Your task to perform on an android device: open wifi settings Image 0: 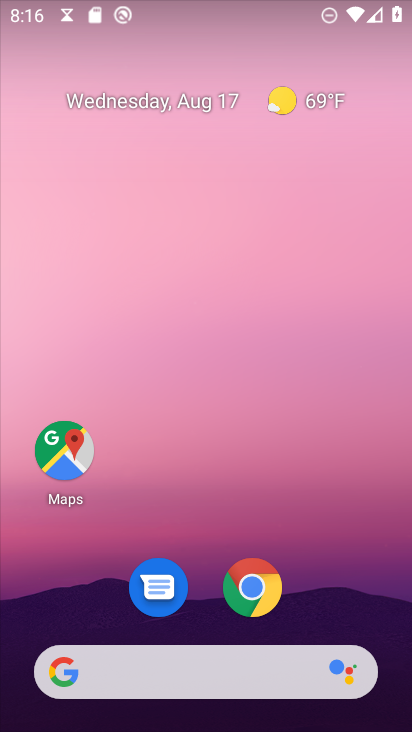
Step 0: drag from (6, 697) to (130, 382)
Your task to perform on an android device: open wifi settings Image 1: 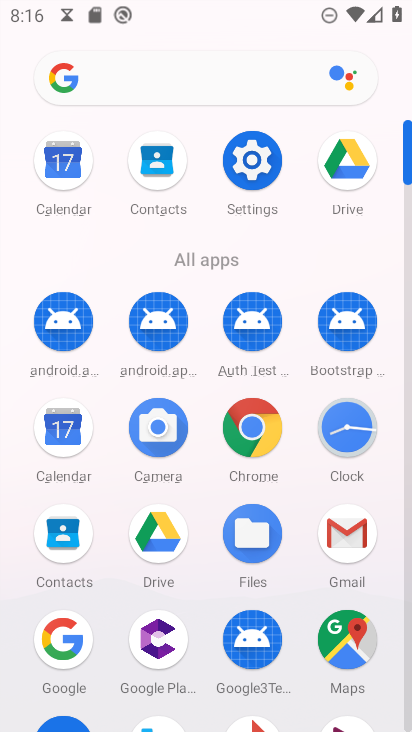
Step 1: click (246, 181)
Your task to perform on an android device: open wifi settings Image 2: 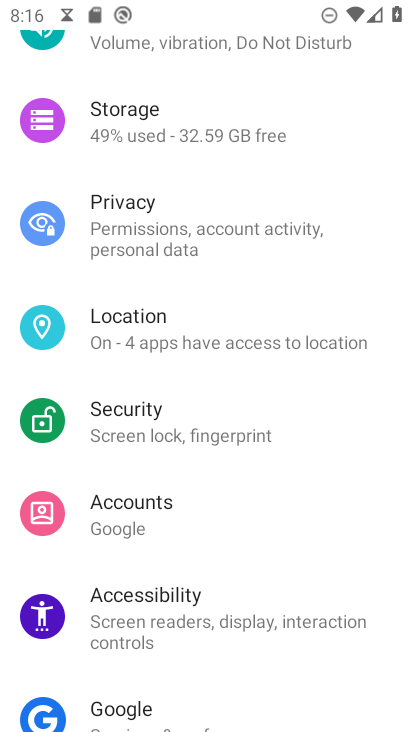
Step 2: drag from (367, 64) to (411, 480)
Your task to perform on an android device: open wifi settings Image 3: 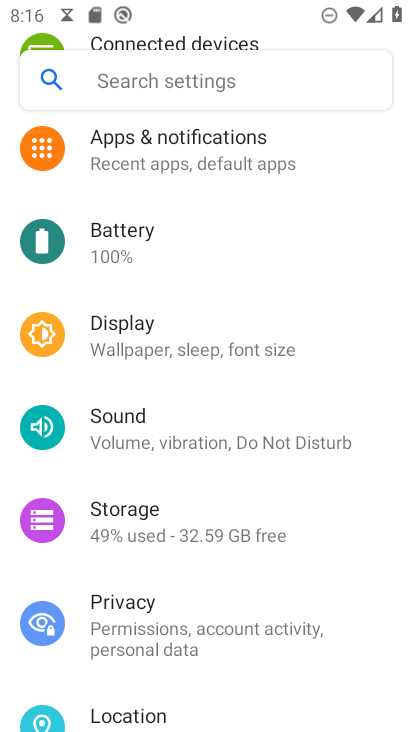
Step 3: drag from (342, 125) to (376, 576)
Your task to perform on an android device: open wifi settings Image 4: 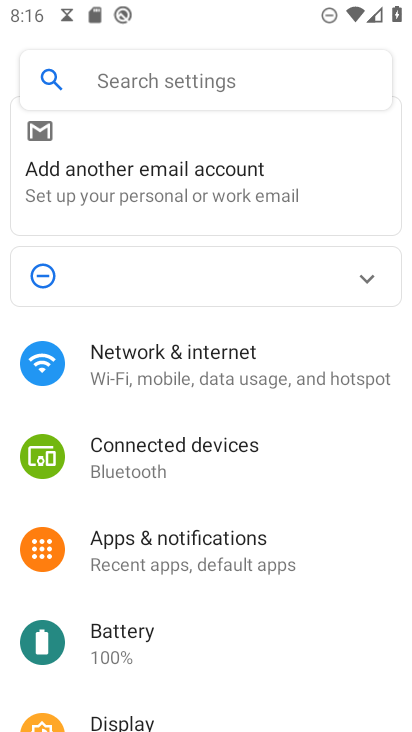
Step 4: click (118, 354)
Your task to perform on an android device: open wifi settings Image 5: 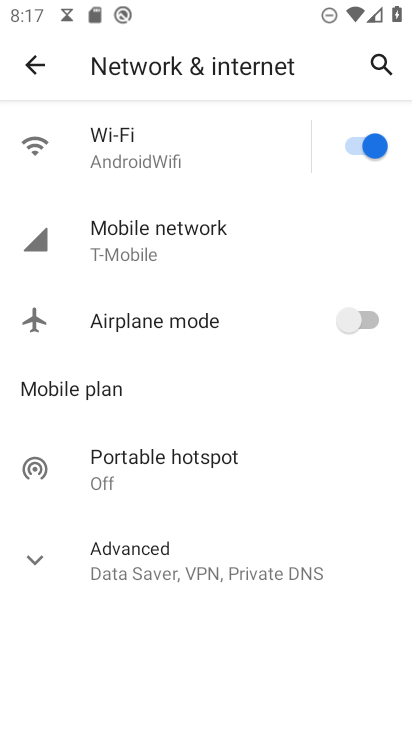
Step 5: task complete